Your task to perform on an android device: Go to internet settings Image 0: 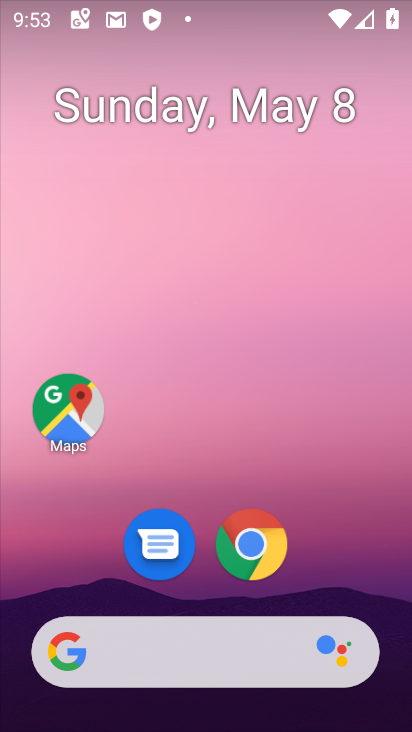
Step 0: drag from (351, 575) to (253, 2)
Your task to perform on an android device: Go to internet settings Image 1: 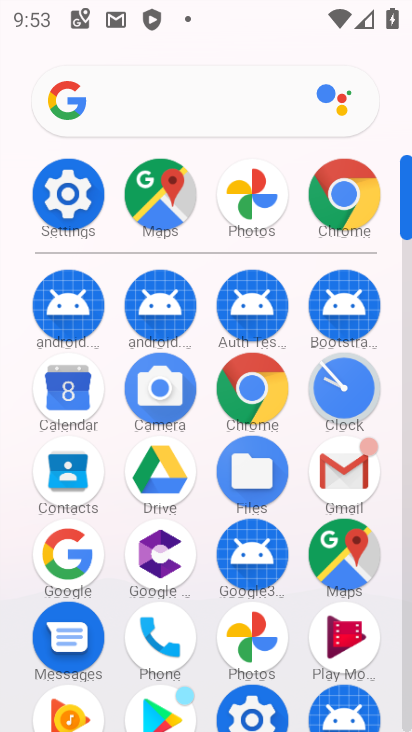
Step 1: click (268, 722)
Your task to perform on an android device: Go to internet settings Image 2: 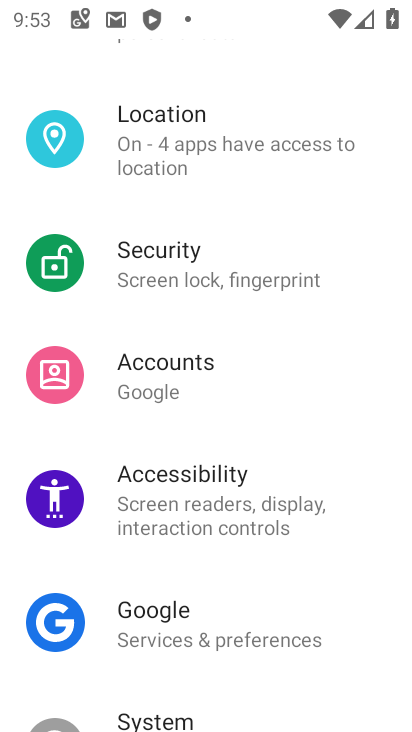
Step 2: drag from (261, 229) to (338, 508)
Your task to perform on an android device: Go to internet settings Image 3: 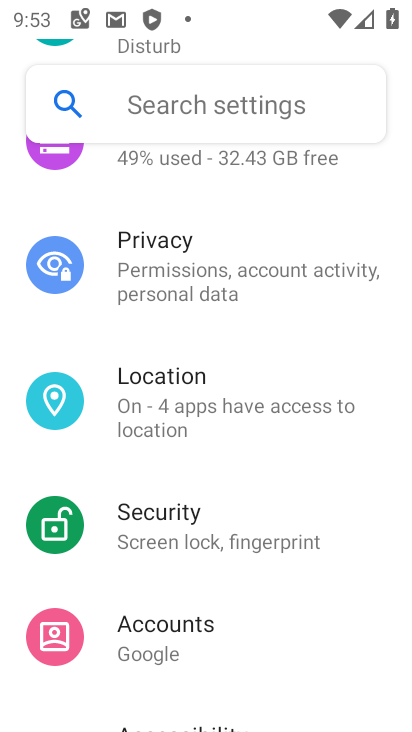
Step 3: drag from (292, 312) to (373, 567)
Your task to perform on an android device: Go to internet settings Image 4: 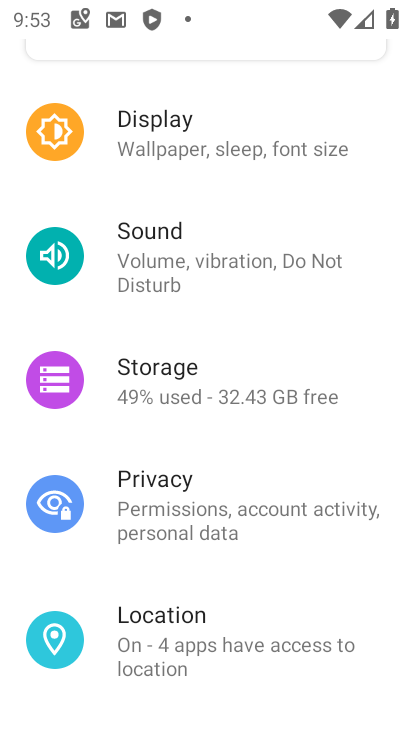
Step 4: drag from (140, 420) to (232, 713)
Your task to perform on an android device: Go to internet settings Image 5: 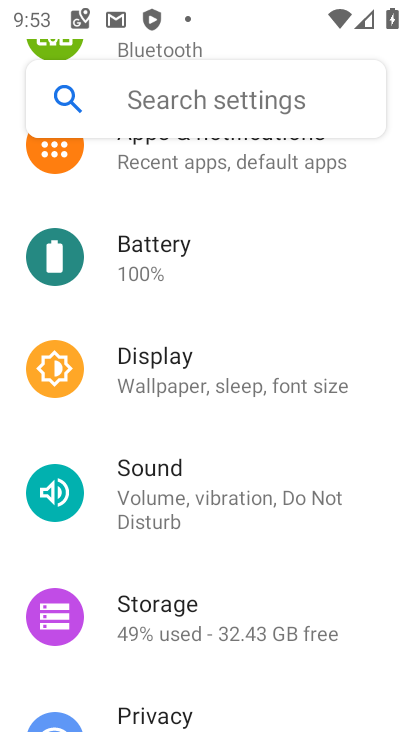
Step 5: drag from (278, 280) to (331, 726)
Your task to perform on an android device: Go to internet settings Image 6: 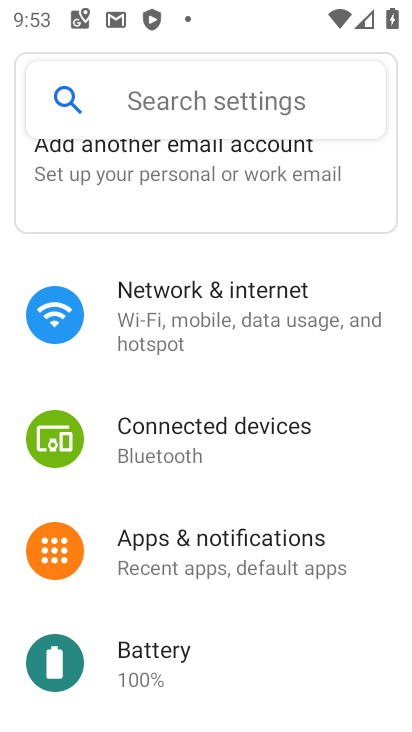
Step 6: click (246, 315)
Your task to perform on an android device: Go to internet settings Image 7: 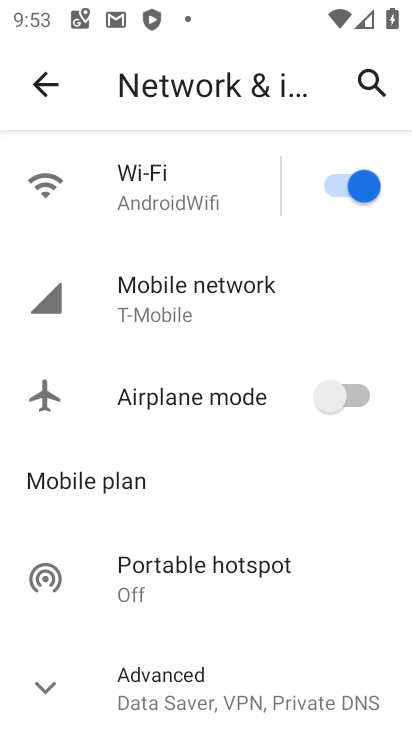
Step 7: click (151, 205)
Your task to perform on an android device: Go to internet settings Image 8: 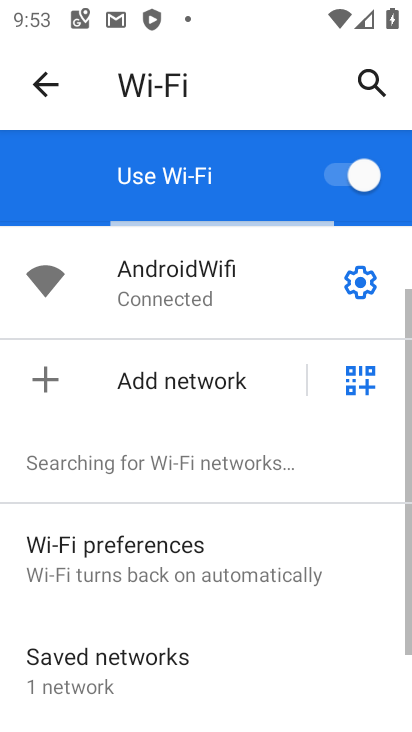
Step 8: task complete